Your task to perform on an android device: set an alarm Image 0: 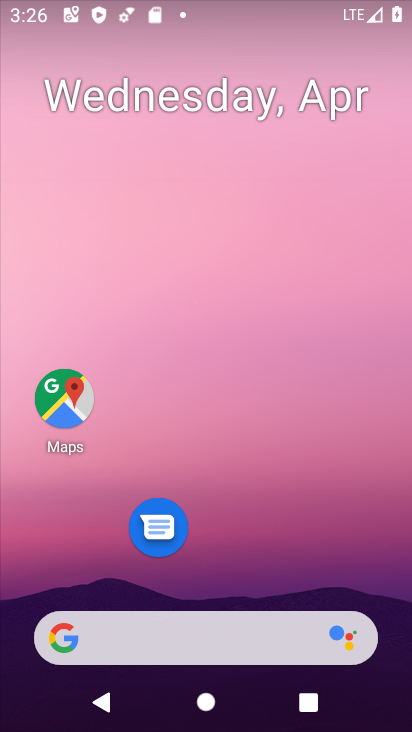
Step 0: drag from (219, 328) to (239, 137)
Your task to perform on an android device: set an alarm Image 1: 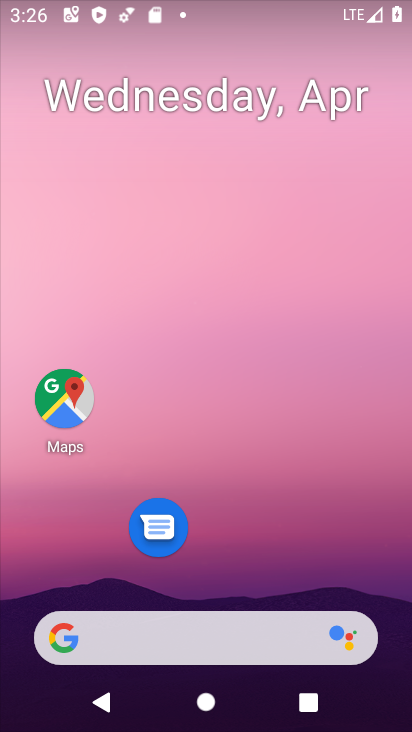
Step 1: drag from (197, 411) to (242, 7)
Your task to perform on an android device: set an alarm Image 2: 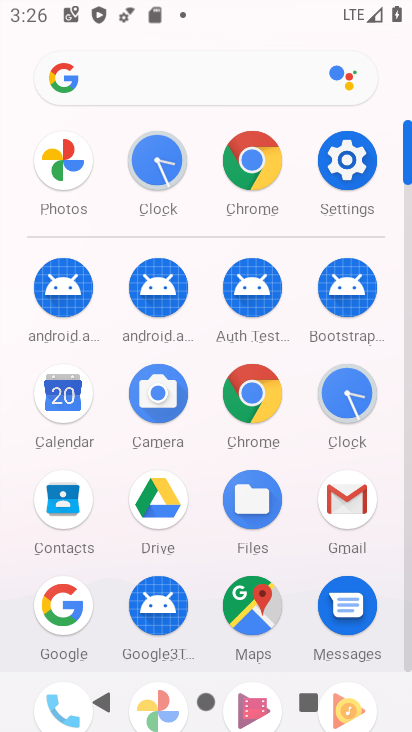
Step 2: click (334, 410)
Your task to perform on an android device: set an alarm Image 3: 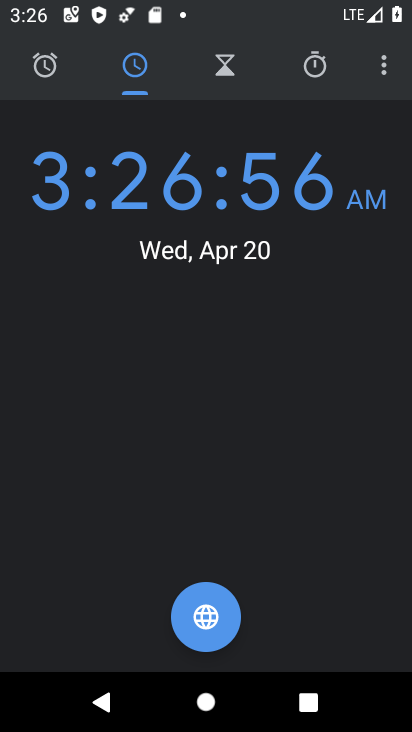
Step 3: click (54, 80)
Your task to perform on an android device: set an alarm Image 4: 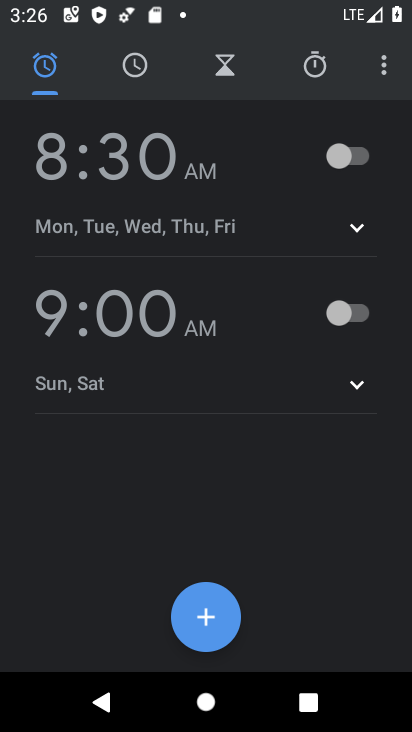
Step 4: click (220, 644)
Your task to perform on an android device: set an alarm Image 5: 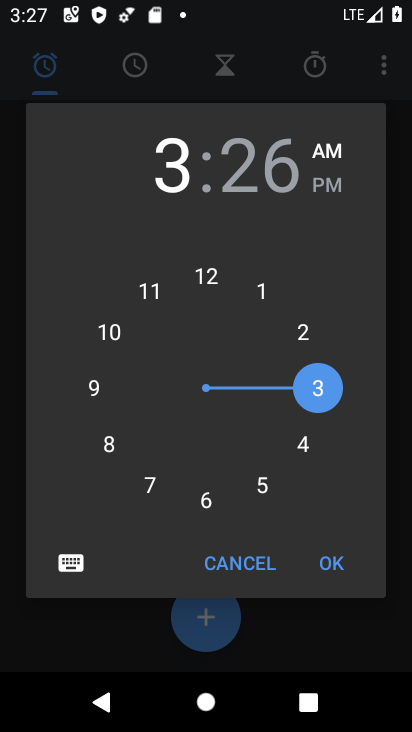
Step 5: click (113, 333)
Your task to perform on an android device: set an alarm Image 6: 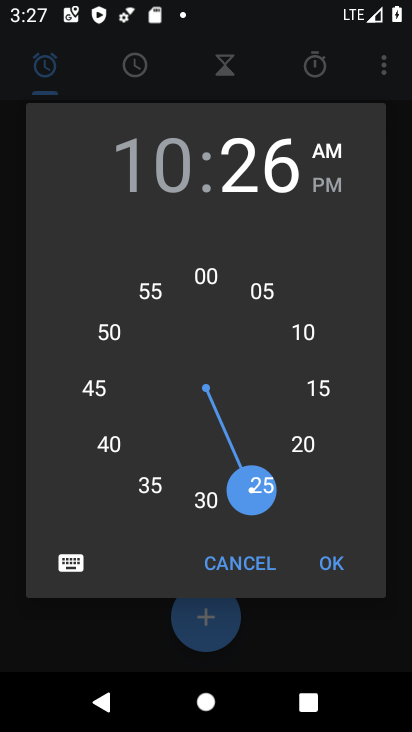
Step 6: click (331, 576)
Your task to perform on an android device: set an alarm Image 7: 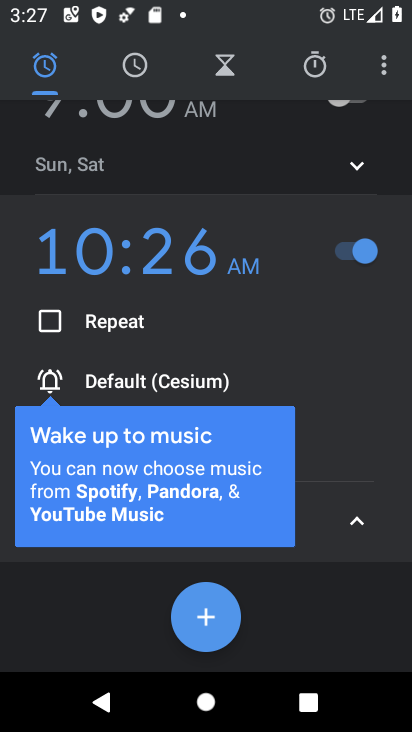
Step 7: task complete